Your task to perform on an android device: Go to Google Image 0: 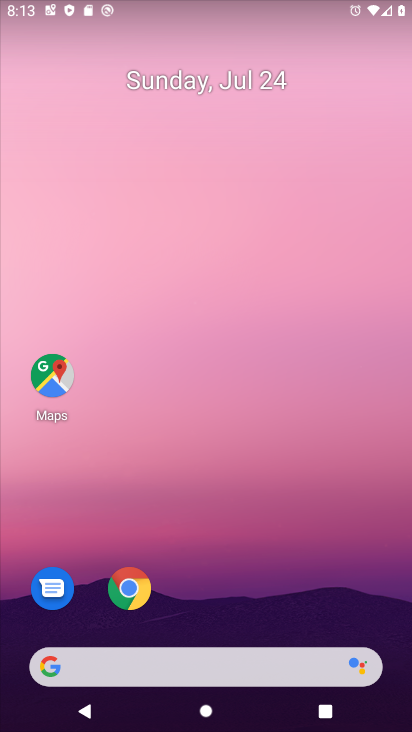
Step 0: drag from (333, 553) to (318, 190)
Your task to perform on an android device: Go to Google Image 1: 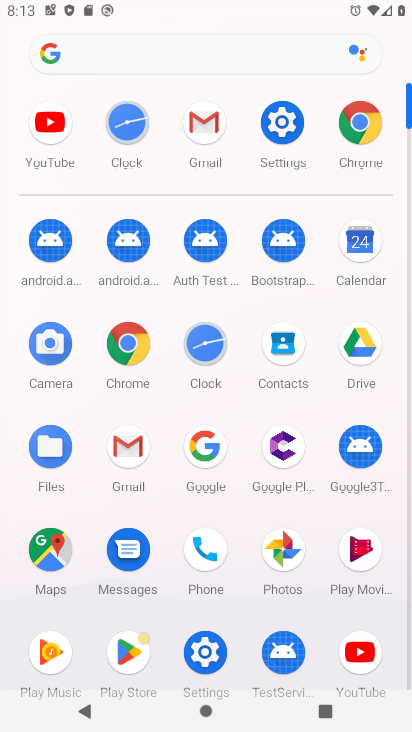
Step 1: click (209, 454)
Your task to perform on an android device: Go to Google Image 2: 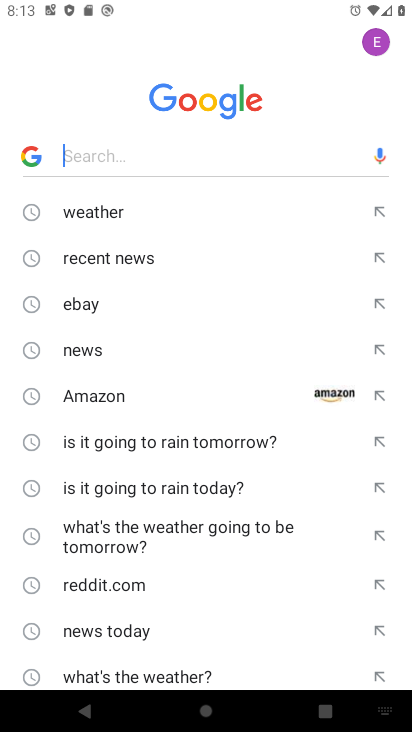
Step 2: task complete